Your task to perform on an android device: Open CNN.com Image 0: 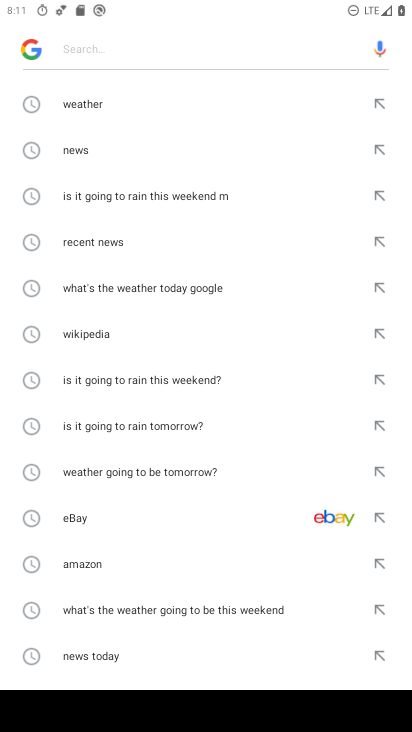
Step 0: type "CNN.com"
Your task to perform on an android device: Open CNN.com Image 1: 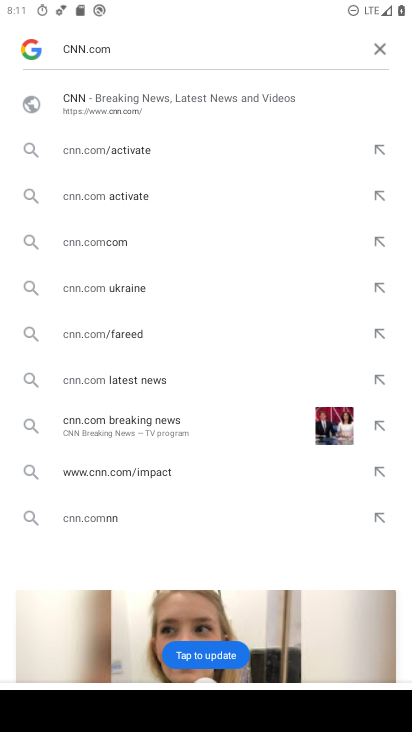
Step 1: click (85, 96)
Your task to perform on an android device: Open CNN.com Image 2: 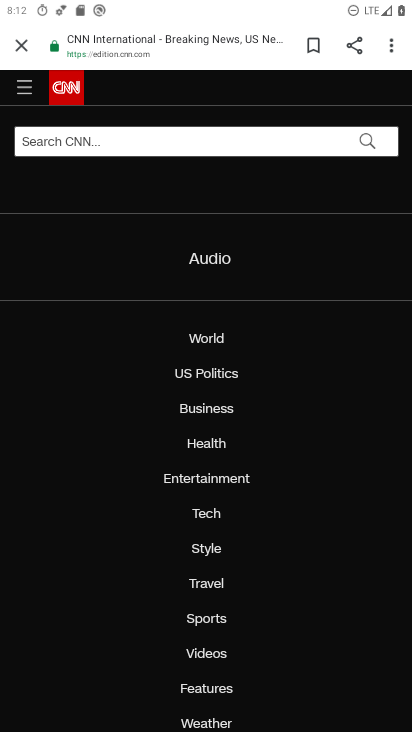
Step 2: task complete